Your task to perform on an android device: turn off picture-in-picture Image 0: 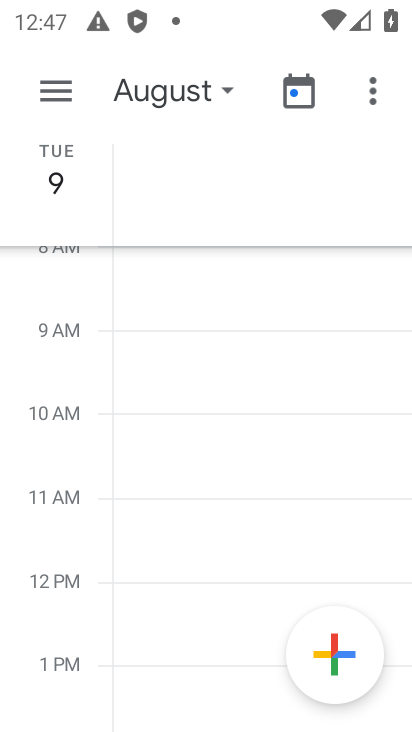
Step 0: press home button
Your task to perform on an android device: turn off picture-in-picture Image 1: 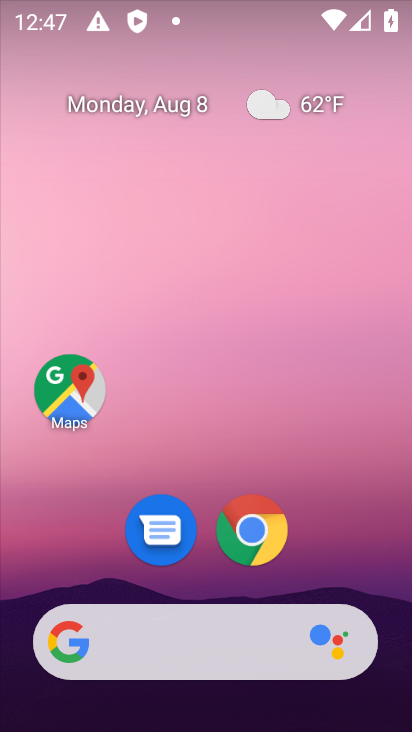
Step 1: drag from (213, 592) to (202, 23)
Your task to perform on an android device: turn off picture-in-picture Image 2: 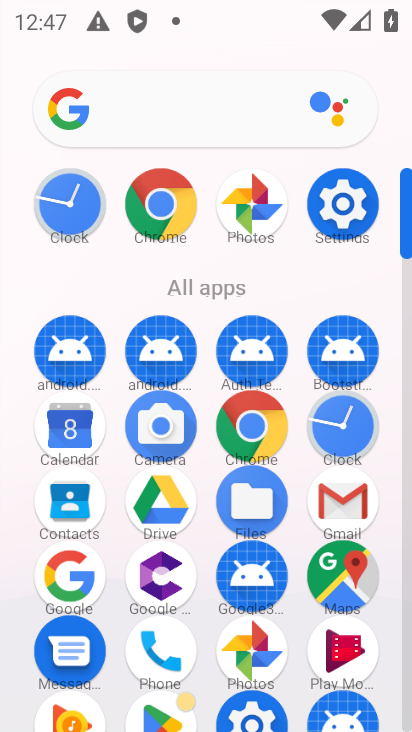
Step 2: click (346, 200)
Your task to perform on an android device: turn off picture-in-picture Image 3: 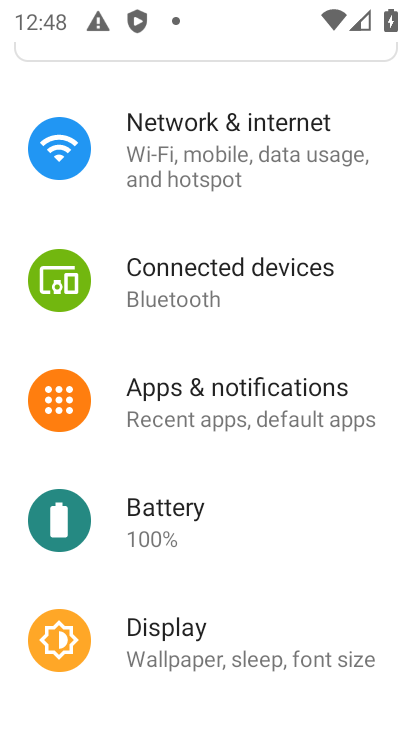
Step 3: drag from (160, 314) to (161, 368)
Your task to perform on an android device: turn off picture-in-picture Image 4: 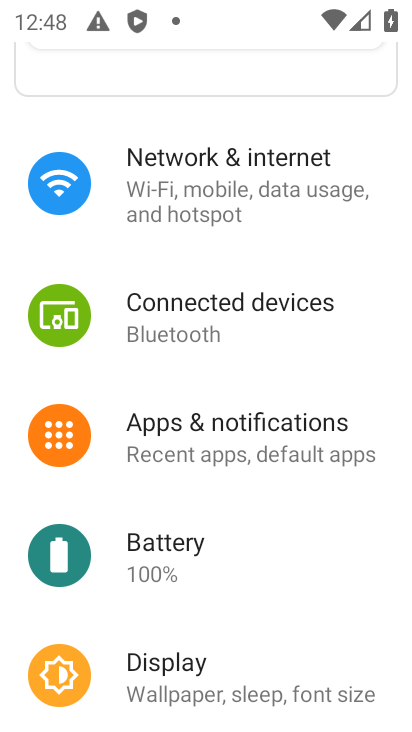
Step 4: click (213, 425)
Your task to perform on an android device: turn off picture-in-picture Image 5: 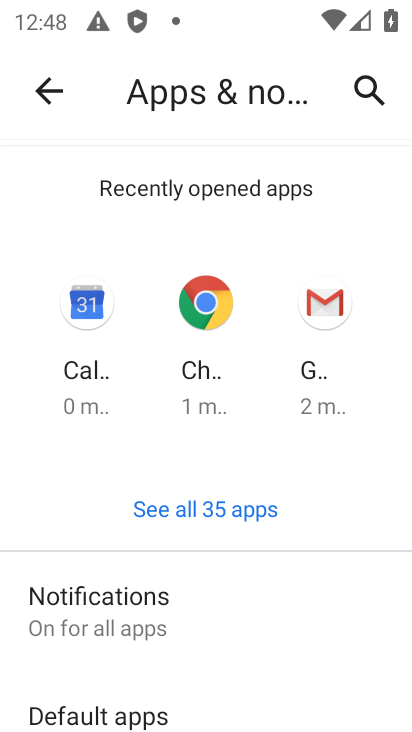
Step 5: drag from (182, 666) to (195, 266)
Your task to perform on an android device: turn off picture-in-picture Image 6: 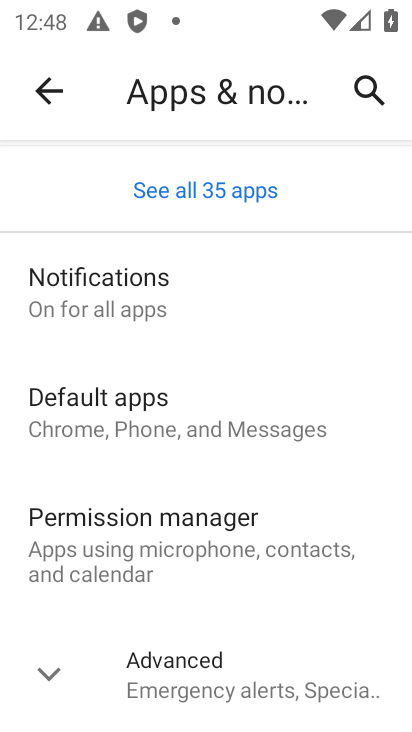
Step 6: click (197, 677)
Your task to perform on an android device: turn off picture-in-picture Image 7: 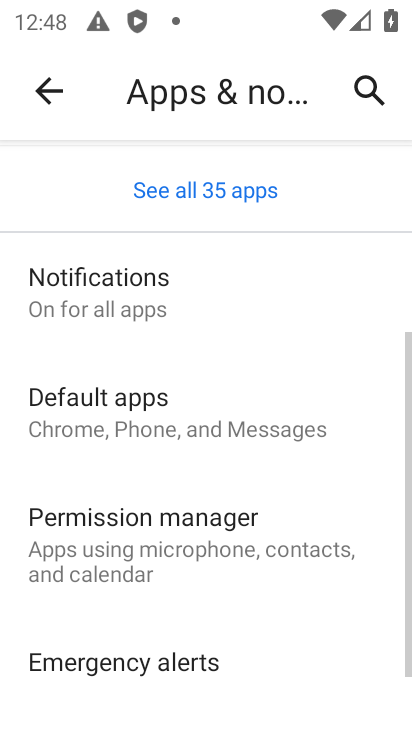
Step 7: drag from (142, 502) to (144, 341)
Your task to perform on an android device: turn off picture-in-picture Image 8: 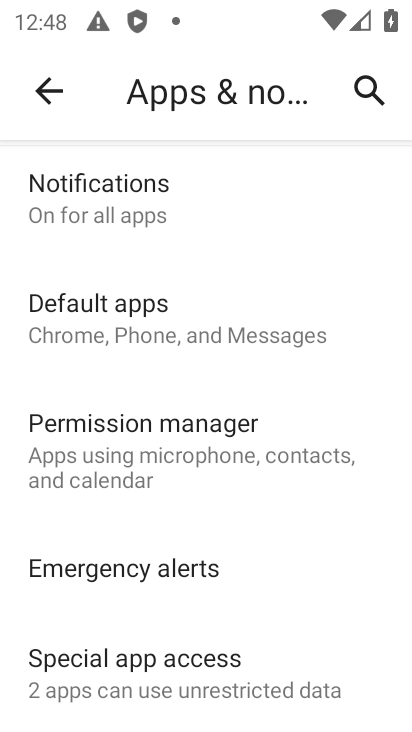
Step 8: click (114, 661)
Your task to perform on an android device: turn off picture-in-picture Image 9: 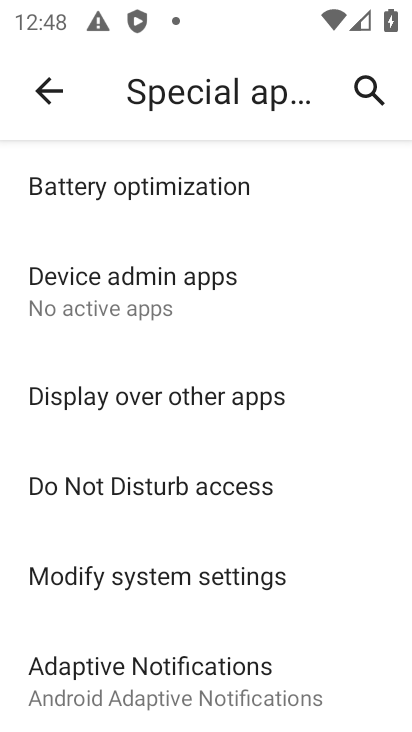
Step 9: drag from (137, 660) to (141, 315)
Your task to perform on an android device: turn off picture-in-picture Image 10: 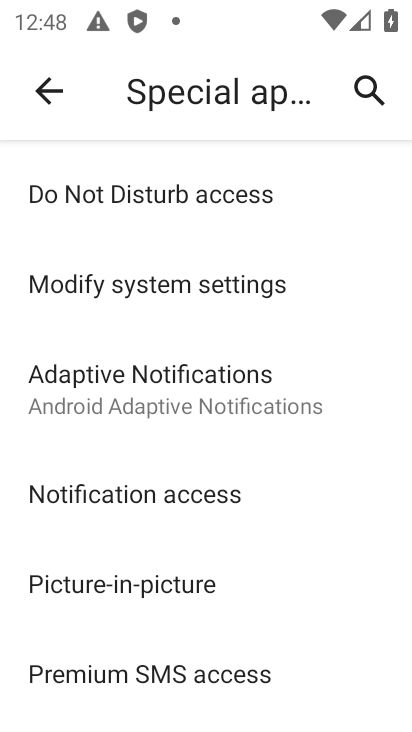
Step 10: click (125, 588)
Your task to perform on an android device: turn off picture-in-picture Image 11: 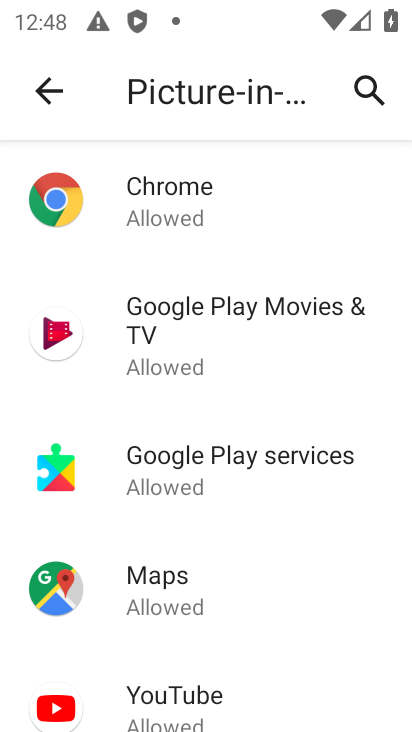
Step 11: click (177, 693)
Your task to perform on an android device: turn off picture-in-picture Image 12: 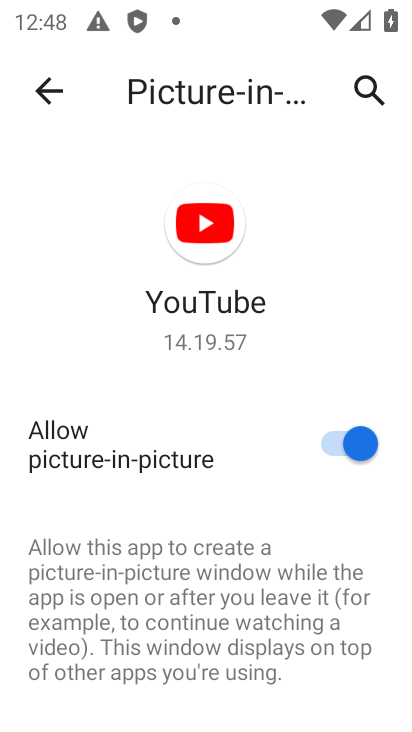
Step 12: click (342, 437)
Your task to perform on an android device: turn off picture-in-picture Image 13: 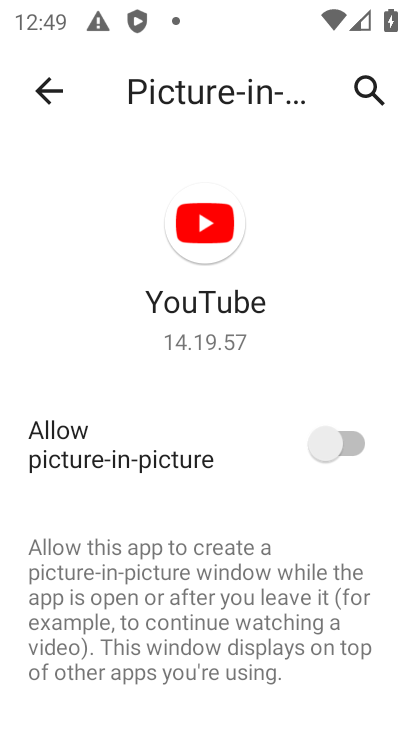
Step 13: task complete